Your task to perform on an android device: turn on data saver in the chrome app Image 0: 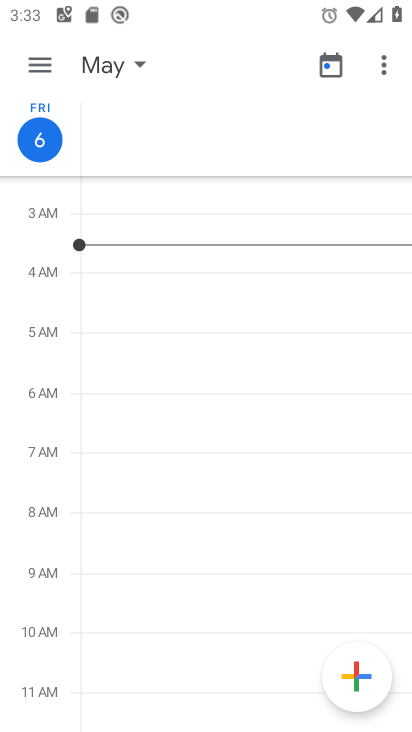
Step 0: press home button
Your task to perform on an android device: turn on data saver in the chrome app Image 1: 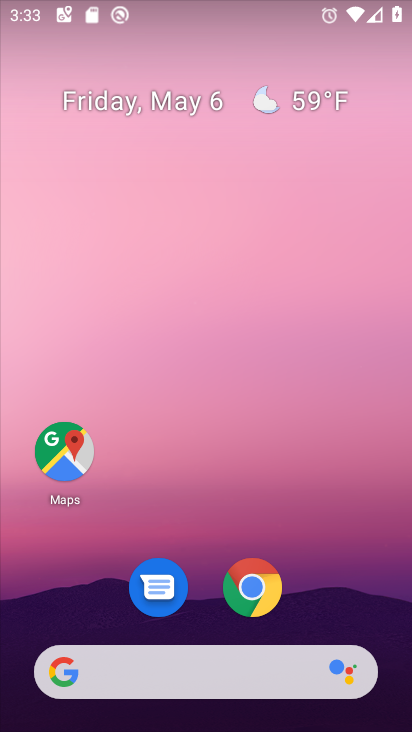
Step 1: drag from (218, 487) to (272, 41)
Your task to perform on an android device: turn on data saver in the chrome app Image 2: 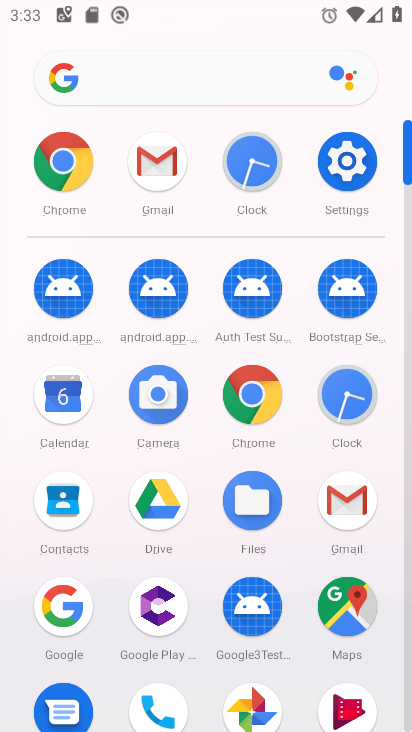
Step 2: click (73, 157)
Your task to perform on an android device: turn on data saver in the chrome app Image 3: 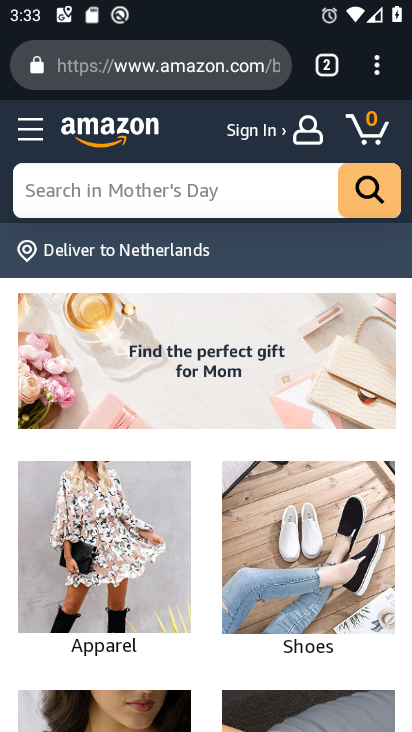
Step 3: drag from (372, 65) to (235, 640)
Your task to perform on an android device: turn on data saver in the chrome app Image 4: 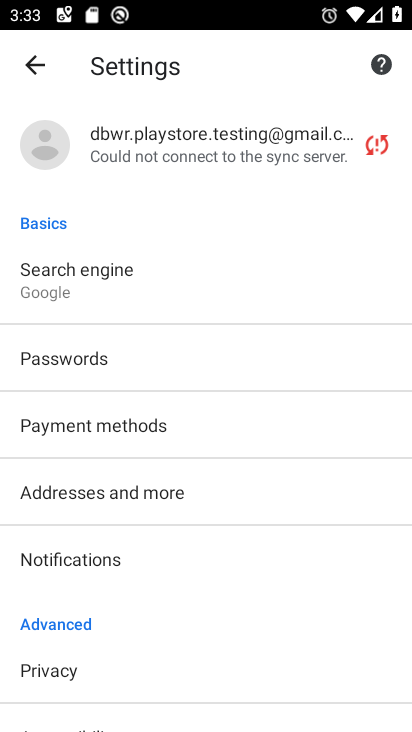
Step 4: drag from (265, 568) to (316, 246)
Your task to perform on an android device: turn on data saver in the chrome app Image 5: 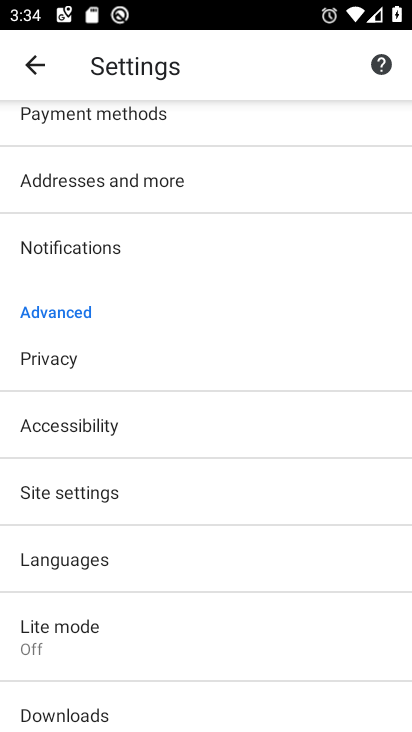
Step 5: click (127, 631)
Your task to perform on an android device: turn on data saver in the chrome app Image 6: 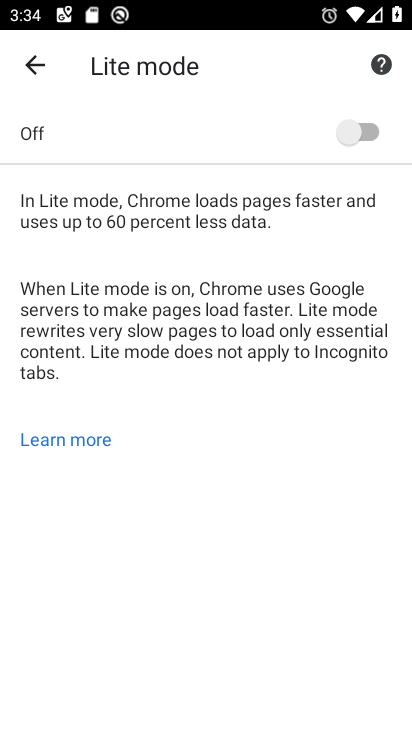
Step 6: click (372, 127)
Your task to perform on an android device: turn on data saver in the chrome app Image 7: 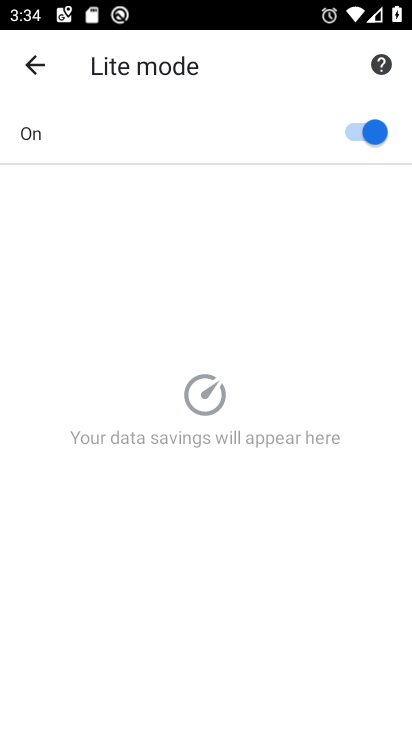
Step 7: task complete